Your task to perform on an android device: turn off priority inbox in the gmail app Image 0: 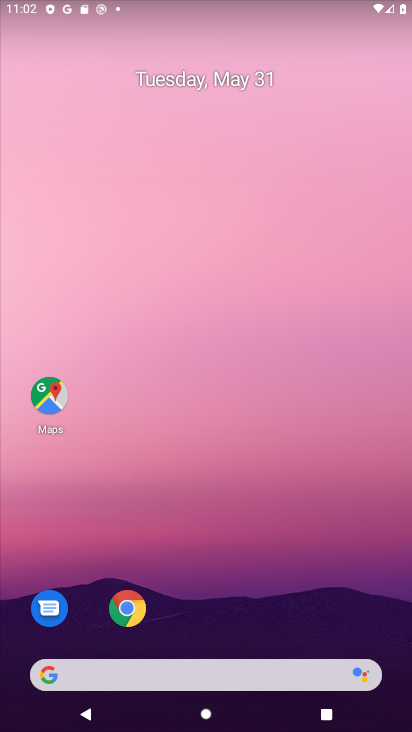
Step 0: drag from (275, 638) to (308, 167)
Your task to perform on an android device: turn off priority inbox in the gmail app Image 1: 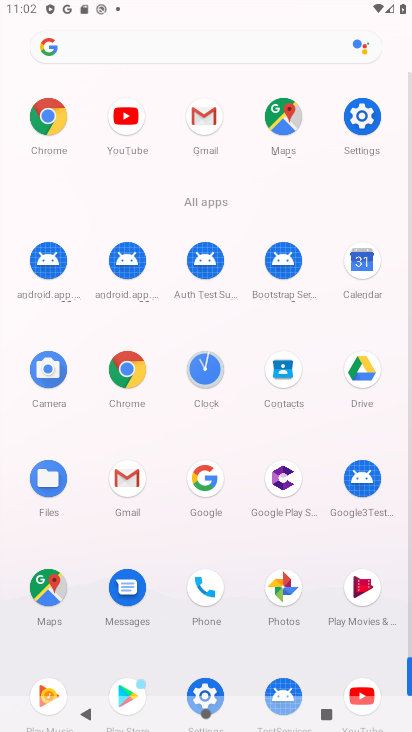
Step 1: click (208, 136)
Your task to perform on an android device: turn off priority inbox in the gmail app Image 2: 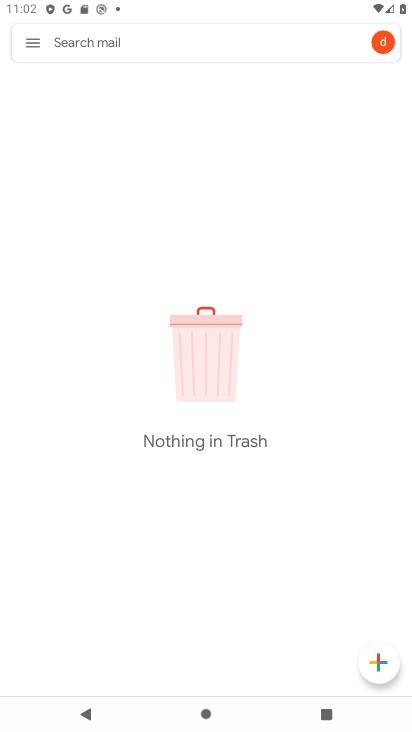
Step 2: click (30, 55)
Your task to perform on an android device: turn off priority inbox in the gmail app Image 3: 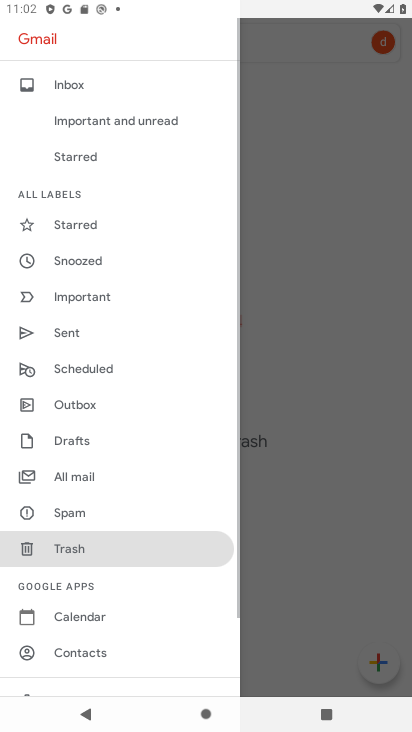
Step 3: drag from (98, 107) to (170, 411)
Your task to perform on an android device: turn off priority inbox in the gmail app Image 4: 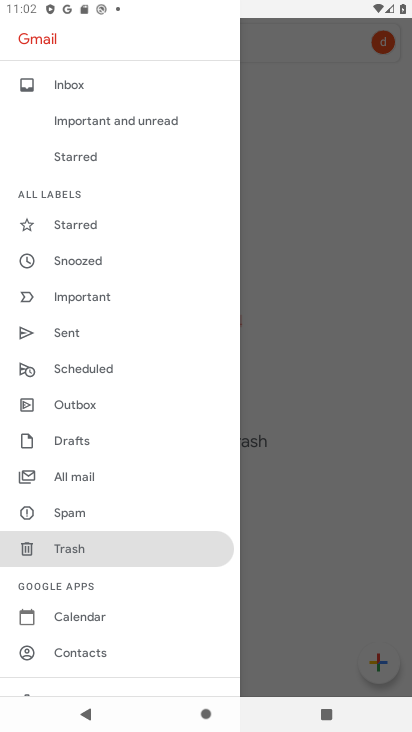
Step 4: drag from (78, 664) to (167, 141)
Your task to perform on an android device: turn off priority inbox in the gmail app Image 5: 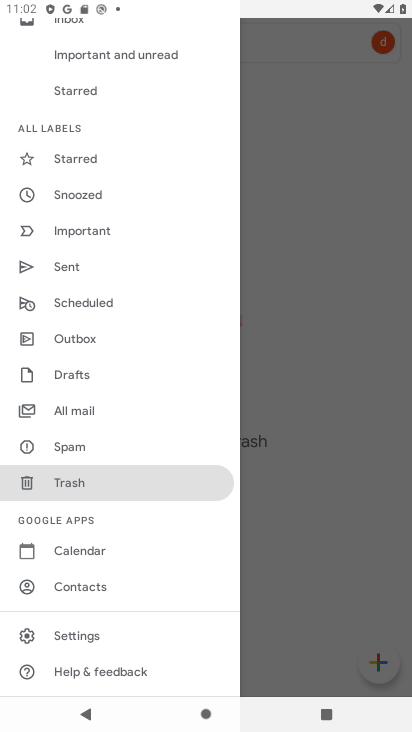
Step 5: click (121, 640)
Your task to perform on an android device: turn off priority inbox in the gmail app Image 6: 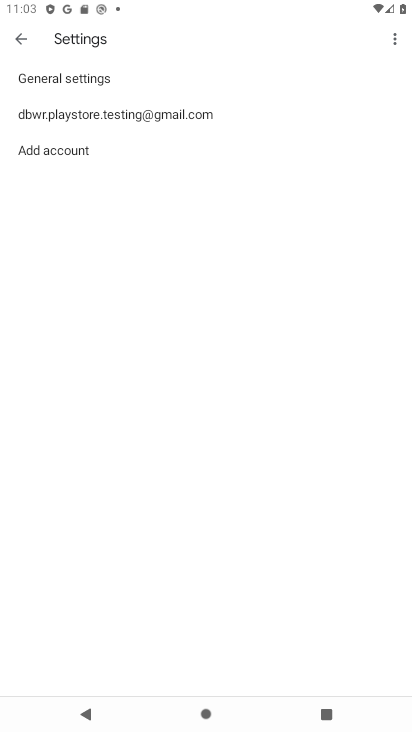
Step 6: click (176, 112)
Your task to perform on an android device: turn off priority inbox in the gmail app Image 7: 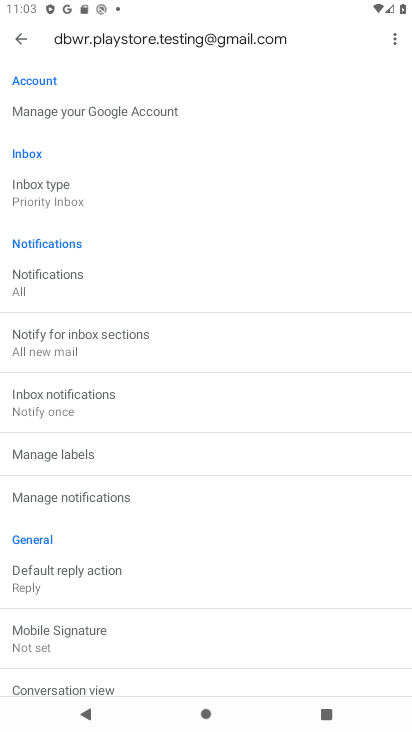
Step 7: click (93, 189)
Your task to perform on an android device: turn off priority inbox in the gmail app Image 8: 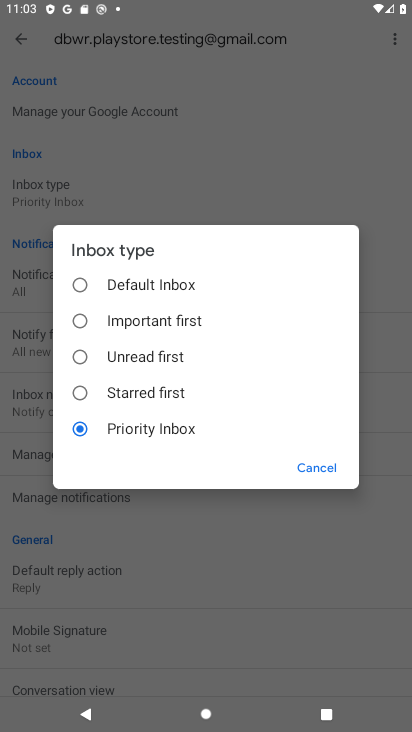
Step 8: click (133, 278)
Your task to perform on an android device: turn off priority inbox in the gmail app Image 9: 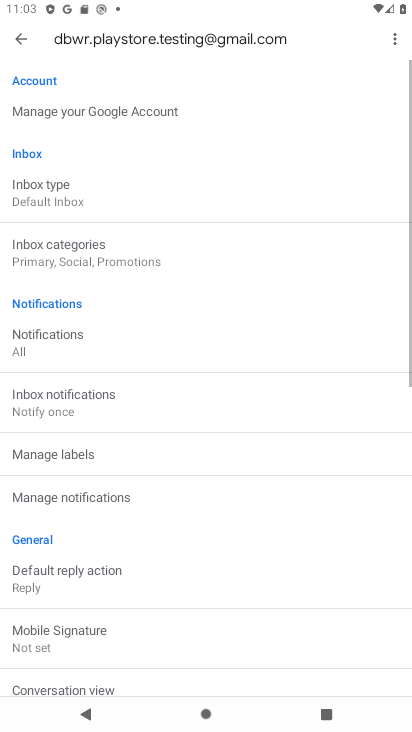
Step 9: task complete